Your task to perform on an android device: turn pop-ups on in chrome Image 0: 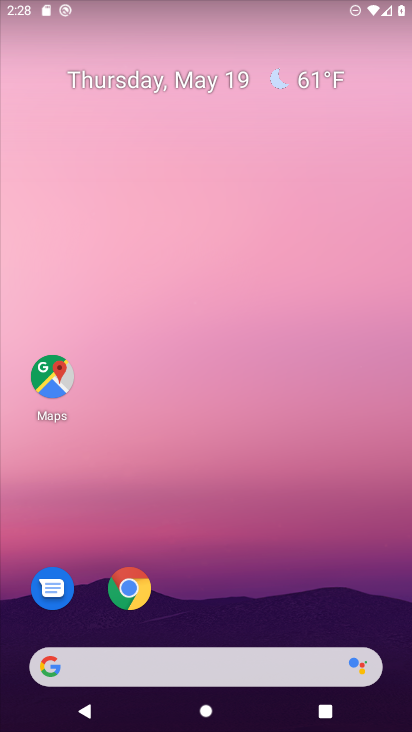
Step 0: click (126, 591)
Your task to perform on an android device: turn pop-ups on in chrome Image 1: 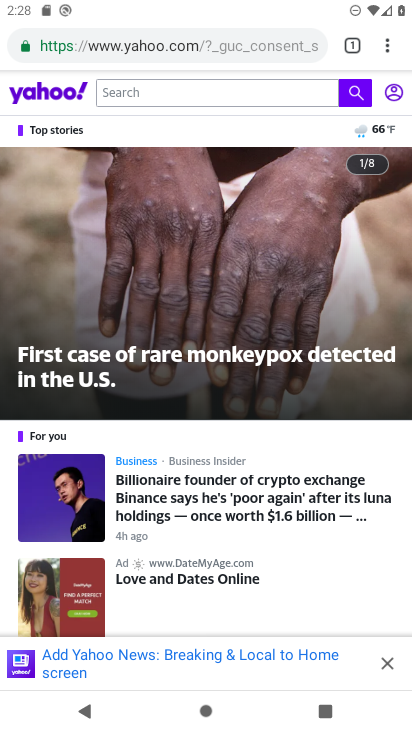
Step 1: drag from (390, 46) to (210, 549)
Your task to perform on an android device: turn pop-ups on in chrome Image 2: 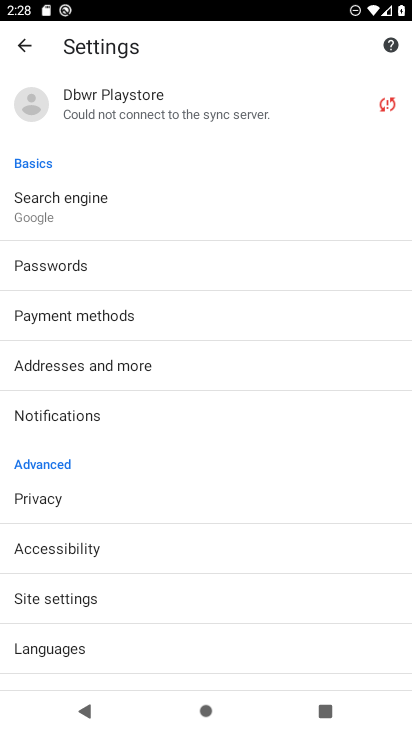
Step 2: click (83, 604)
Your task to perform on an android device: turn pop-ups on in chrome Image 3: 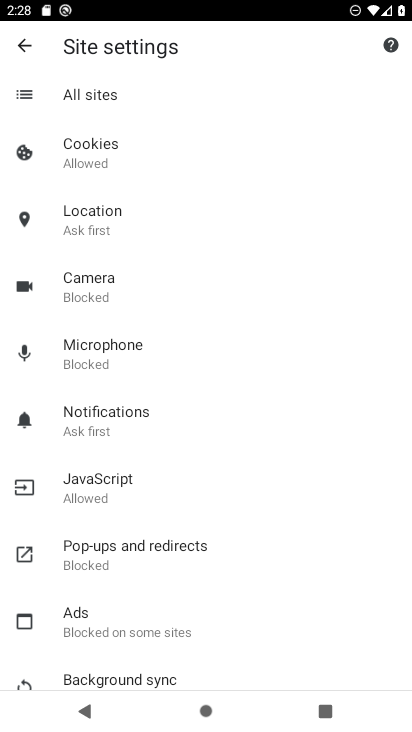
Step 3: click (84, 548)
Your task to perform on an android device: turn pop-ups on in chrome Image 4: 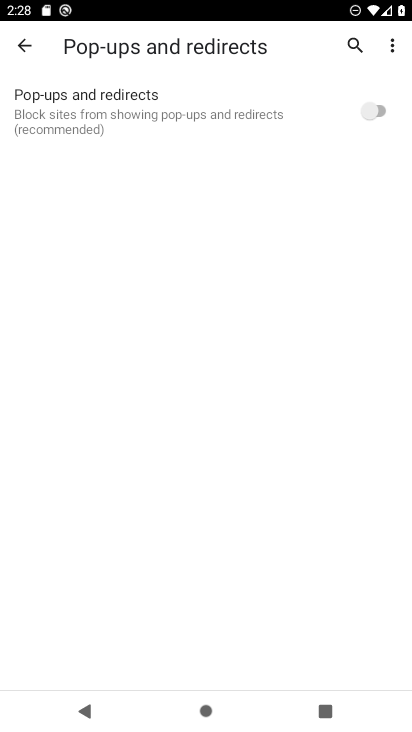
Step 4: click (373, 113)
Your task to perform on an android device: turn pop-ups on in chrome Image 5: 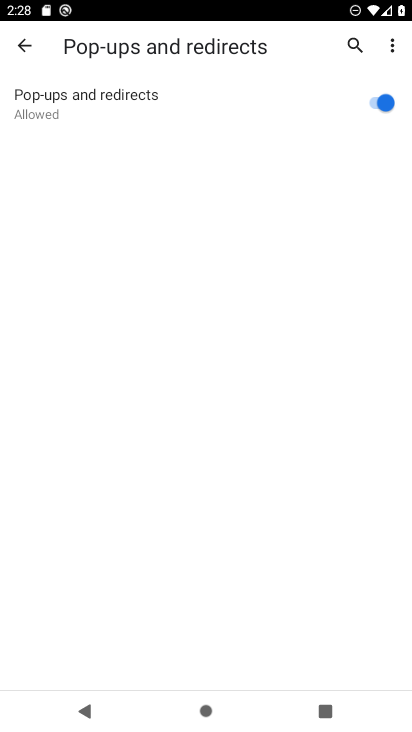
Step 5: task complete